Your task to perform on an android device: check android version Image 0: 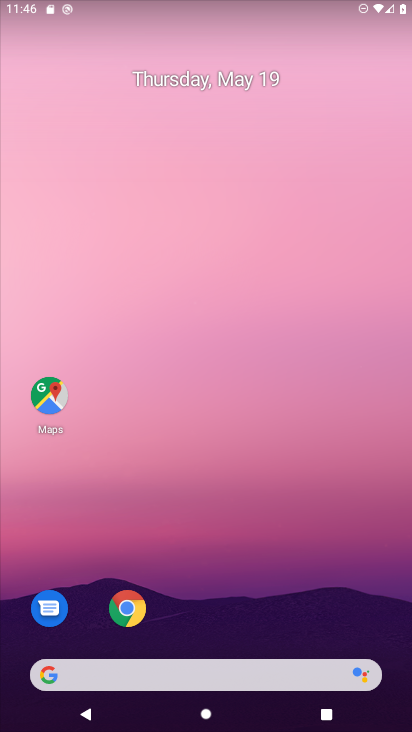
Step 0: press home button
Your task to perform on an android device: check android version Image 1: 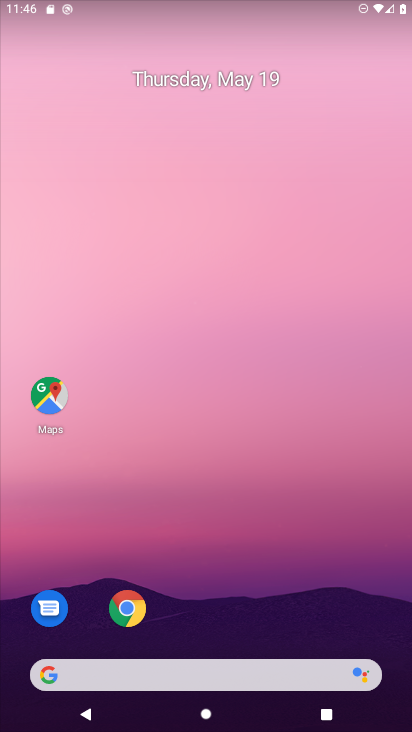
Step 1: drag from (273, 622) to (332, 5)
Your task to perform on an android device: check android version Image 2: 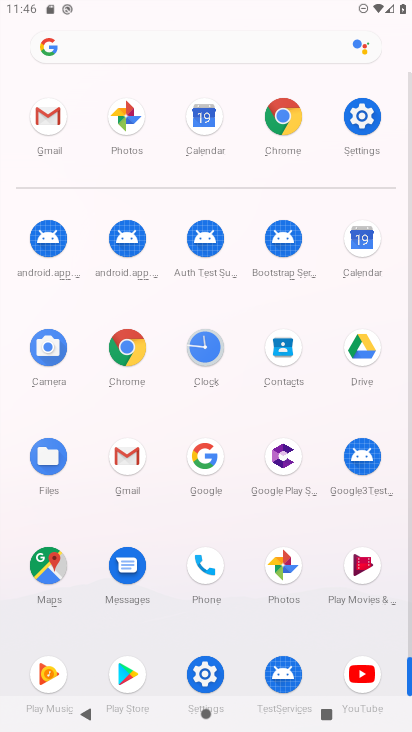
Step 2: click (363, 110)
Your task to perform on an android device: check android version Image 3: 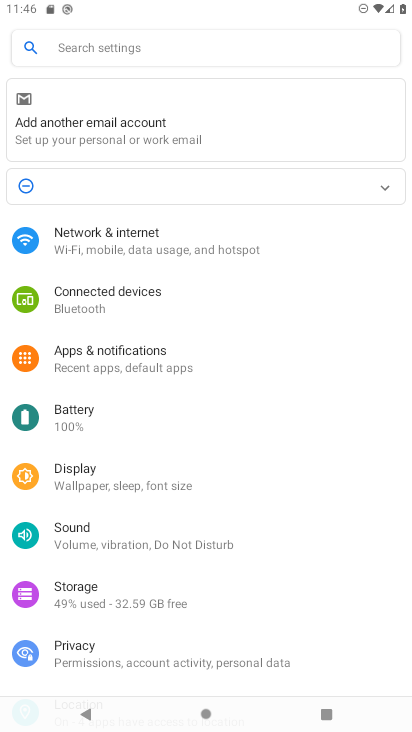
Step 3: drag from (215, 555) to (219, 22)
Your task to perform on an android device: check android version Image 4: 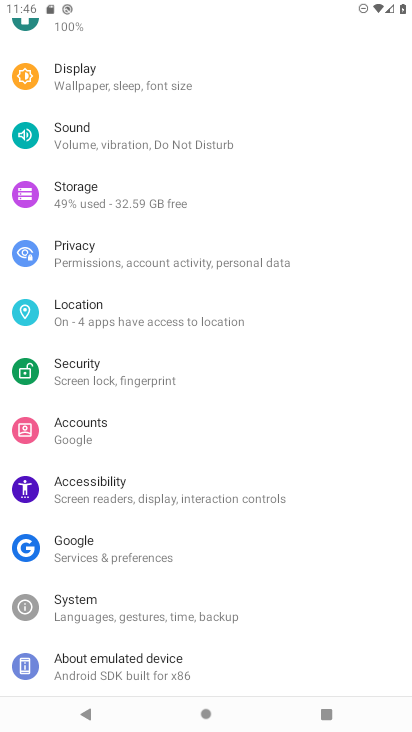
Step 4: click (216, 655)
Your task to perform on an android device: check android version Image 5: 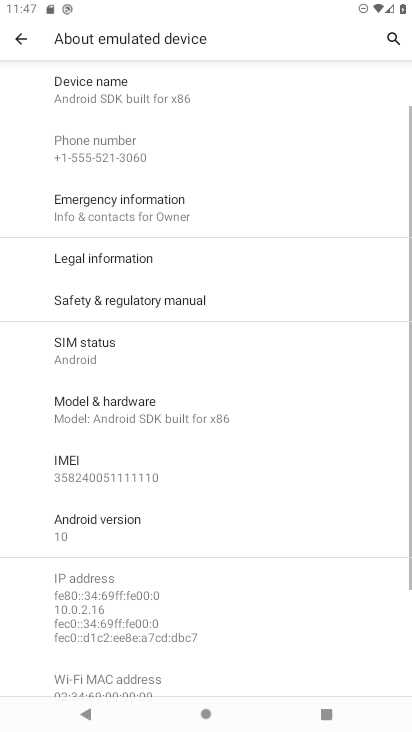
Step 5: click (121, 528)
Your task to perform on an android device: check android version Image 6: 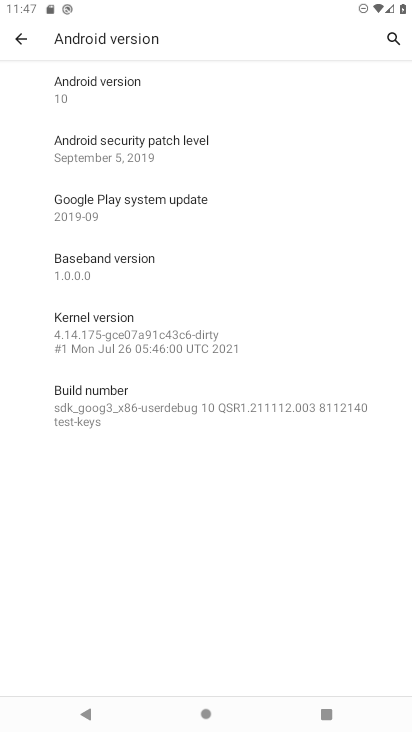
Step 6: task complete